Your task to perform on an android device: turn notification dots on Image 0: 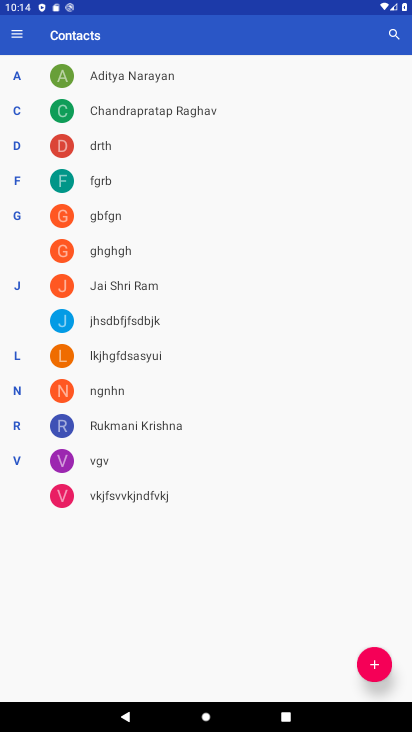
Step 0: press home button
Your task to perform on an android device: turn notification dots on Image 1: 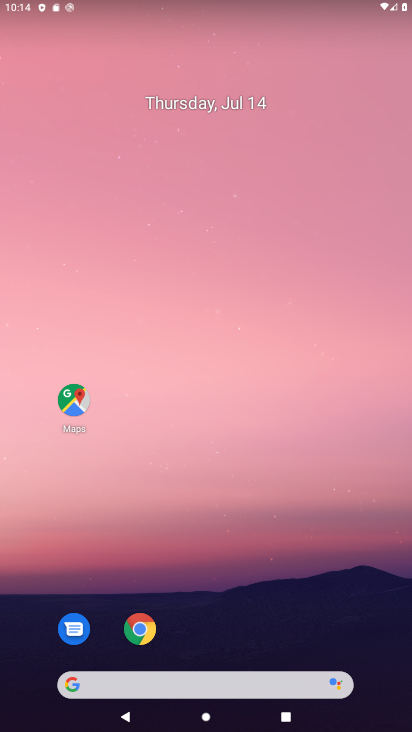
Step 1: drag from (172, 673) to (161, 315)
Your task to perform on an android device: turn notification dots on Image 2: 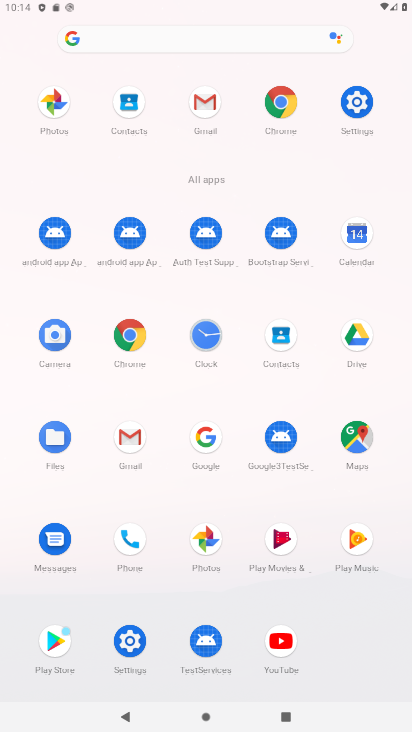
Step 2: click (368, 105)
Your task to perform on an android device: turn notification dots on Image 3: 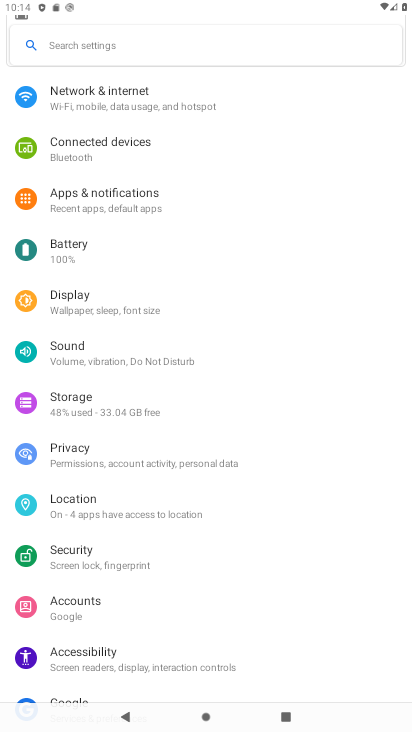
Step 3: click (94, 197)
Your task to perform on an android device: turn notification dots on Image 4: 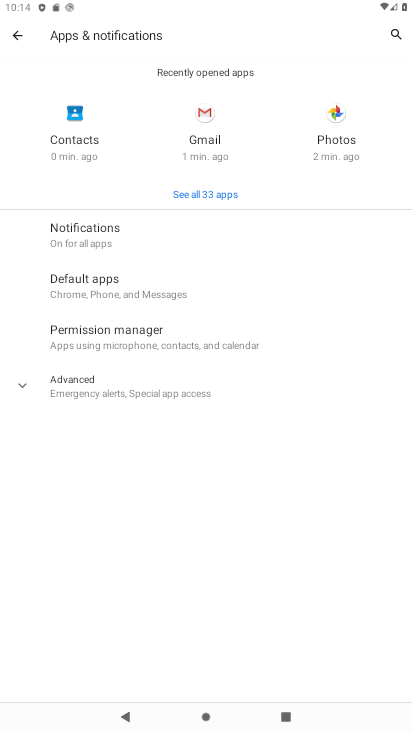
Step 4: click (96, 226)
Your task to perform on an android device: turn notification dots on Image 5: 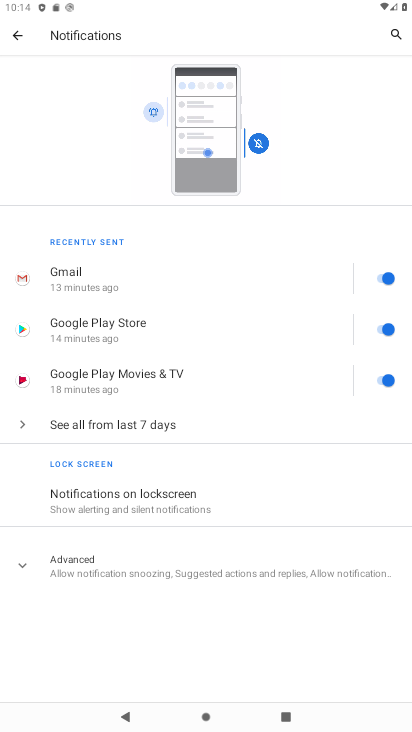
Step 5: click (147, 566)
Your task to perform on an android device: turn notification dots on Image 6: 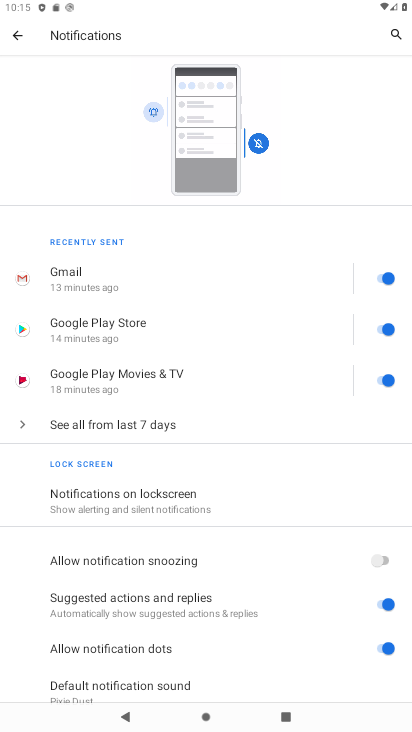
Step 6: task complete